Your task to perform on an android device: Open Chrome and go to the settings page Image 0: 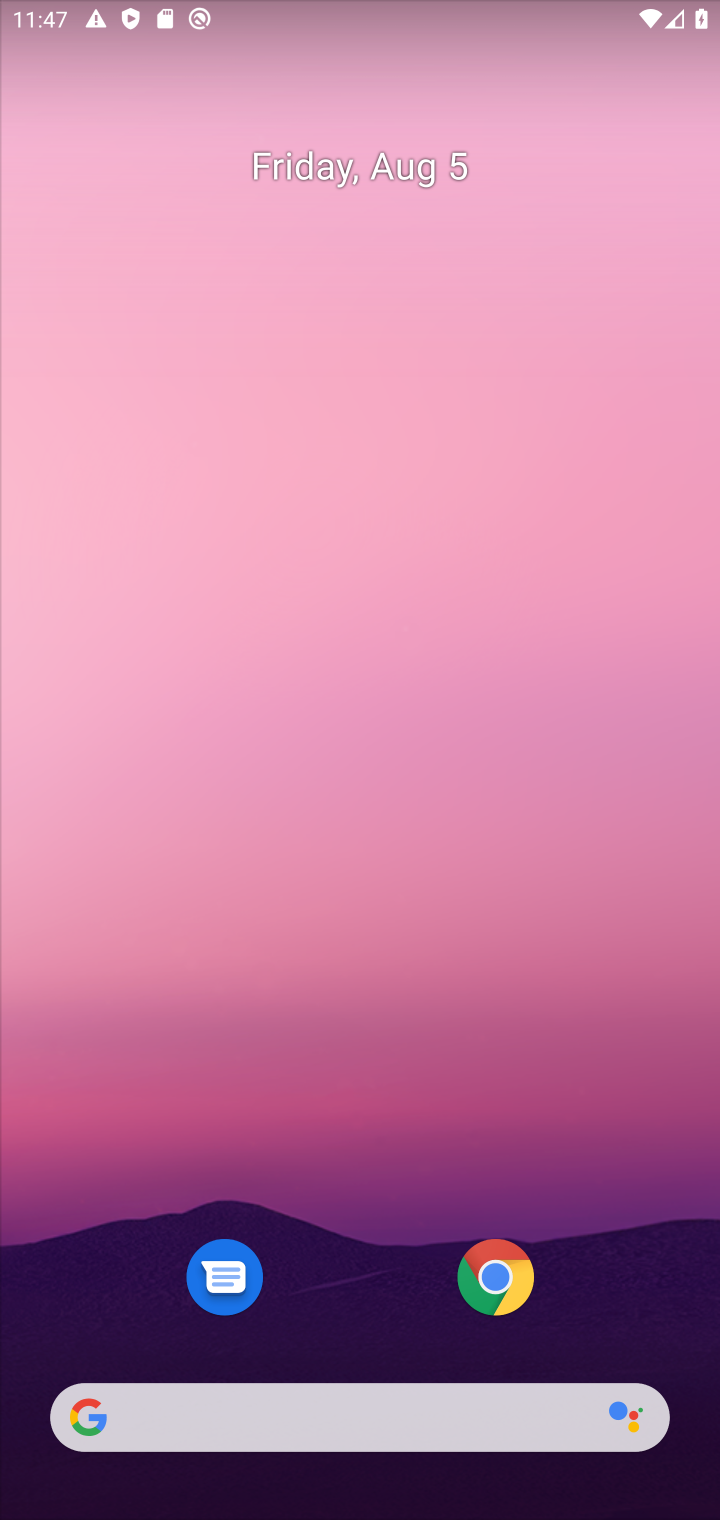
Step 0: click (486, 1263)
Your task to perform on an android device: Open Chrome and go to the settings page Image 1: 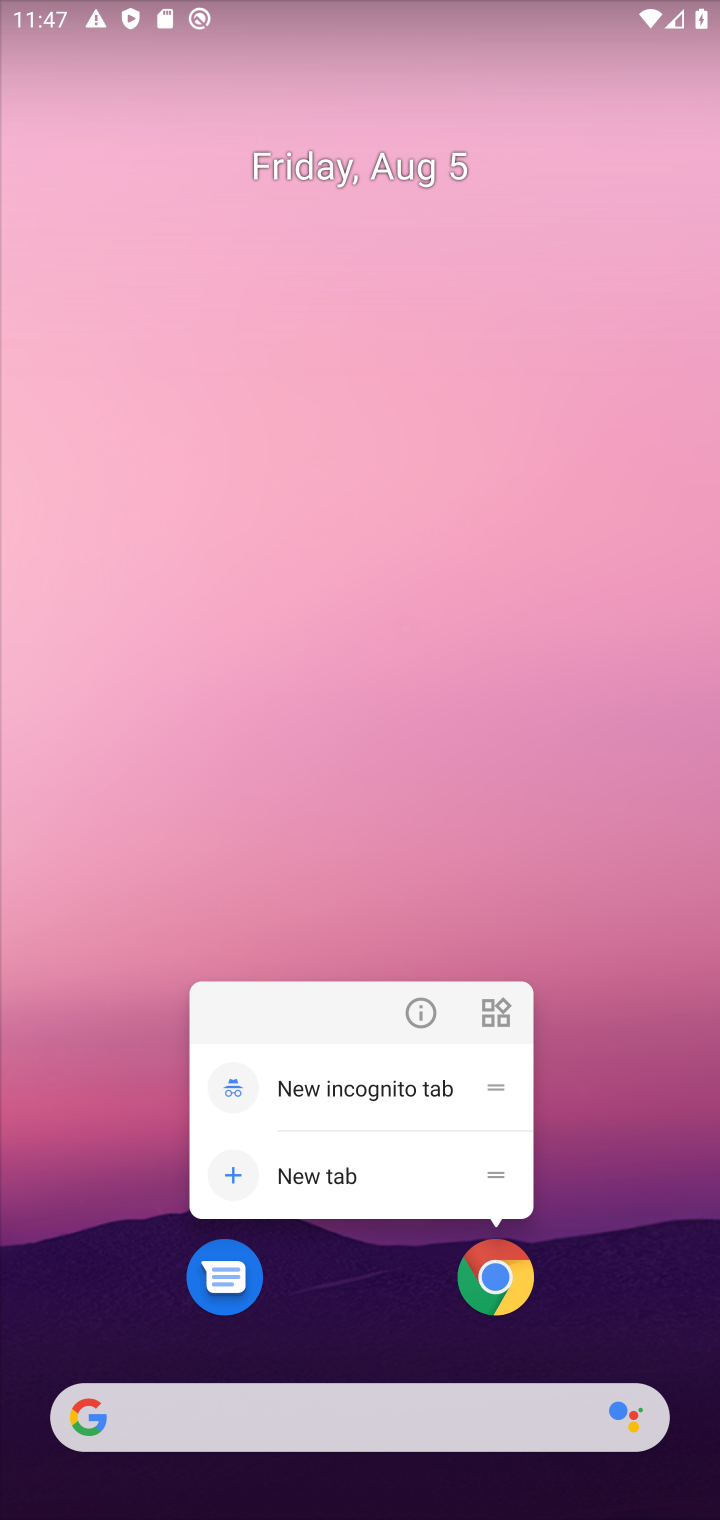
Step 1: click (486, 1269)
Your task to perform on an android device: Open Chrome and go to the settings page Image 2: 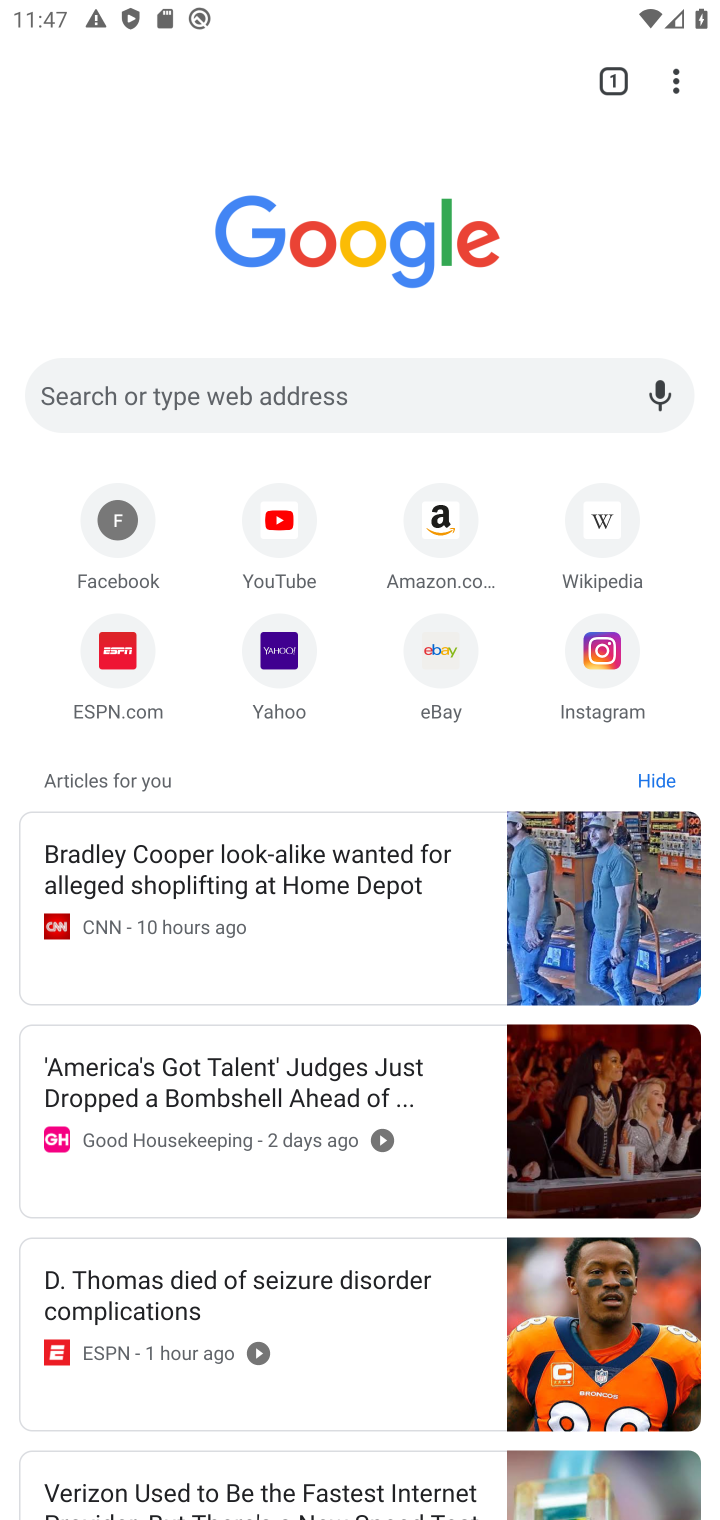
Step 2: task complete